Your task to perform on an android device: open app "Adobe Acrobat Reader" Image 0: 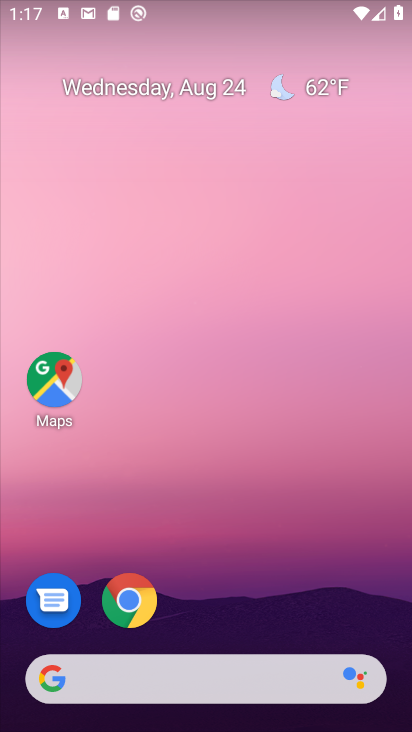
Step 0: drag from (210, 634) to (196, 7)
Your task to perform on an android device: open app "Adobe Acrobat Reader" Image 1: 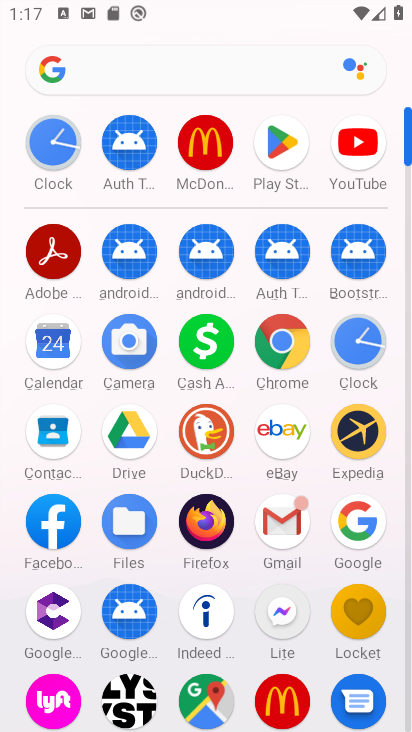
Step 1: click (294, 133)
Your task to perform on an android device: open app "Adobe Acrobat Reader" Image 2: 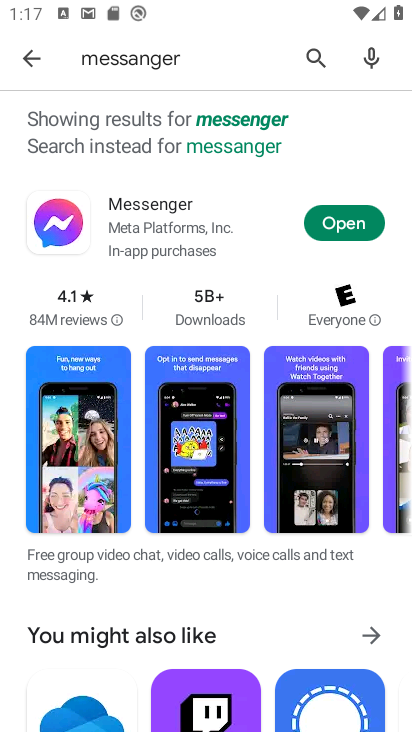
Step 2: press home button
Your task to perform on an android device: open app "Adobe Acrobat Reader" Image 3: 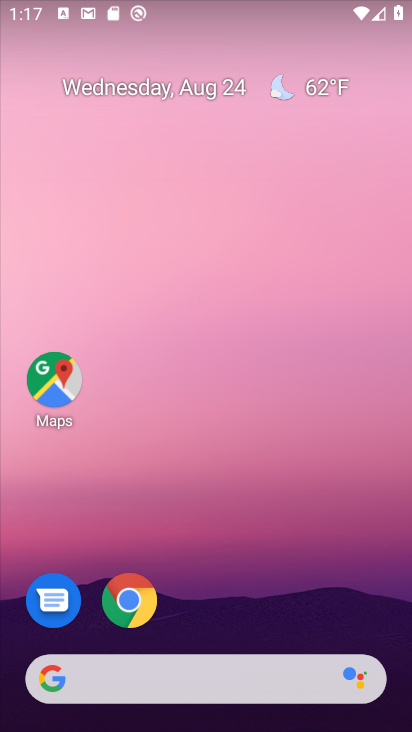
Step 3: drag from (352, 639) to (162, 23)
Your task to perform on an android device: open app "Adobe Acrobat Reader" Image 4: 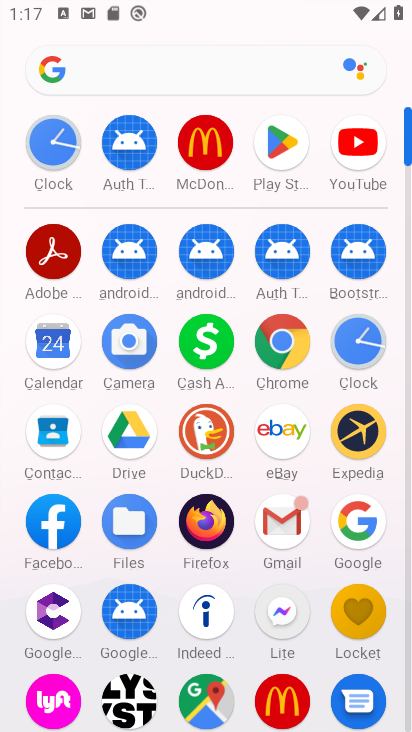
Step 4: click (50, 281)
Your task to perform on an android device: open app "Adobe Acrobat Reader" Image 5: 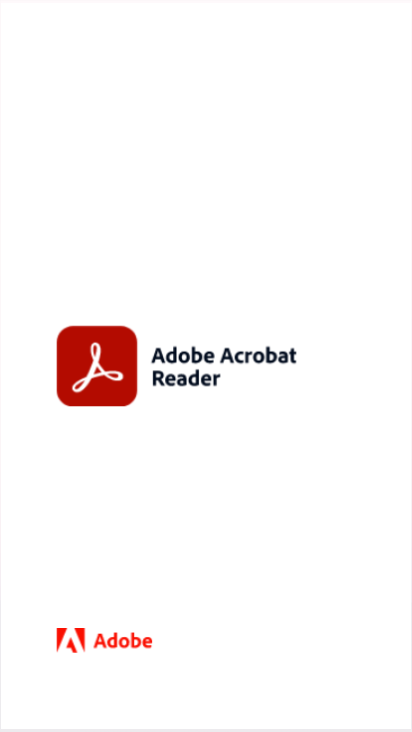
Step 5: task complete